Your task to perform on an android device: remove spam from my inbox in the gmail app Image 0: 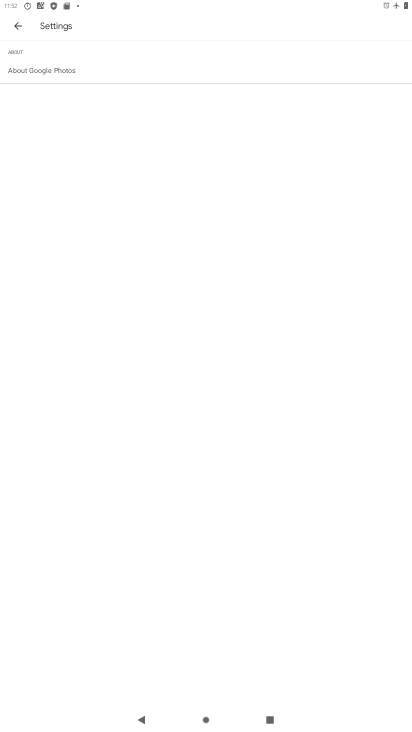
Step 0: press home button
Your task to perform on an android device: remove spam from my inbox in the gmail app Image 1: 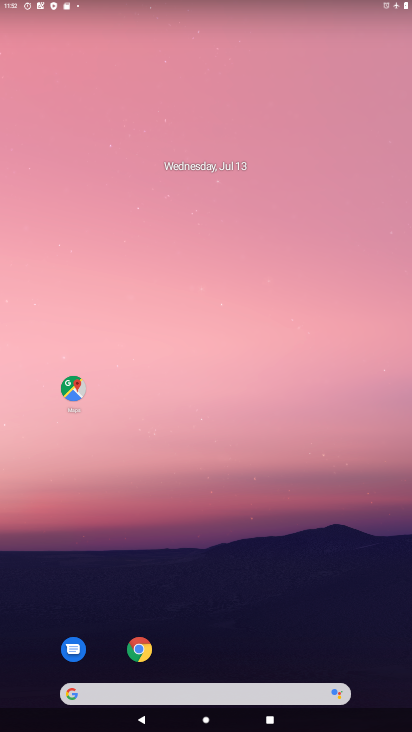
Step 1: drag from (196, 690) to (235, 165)
Your task to perform on an android device: remove spam from my inbox in the gmail app Image 2: 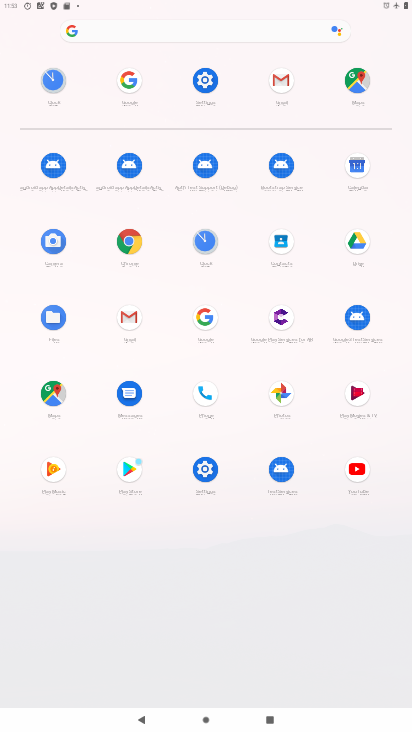
Step 2: click (281, 81)
Your task to perform on an android device: remove spam from my inbox in the gmail app Image 3: 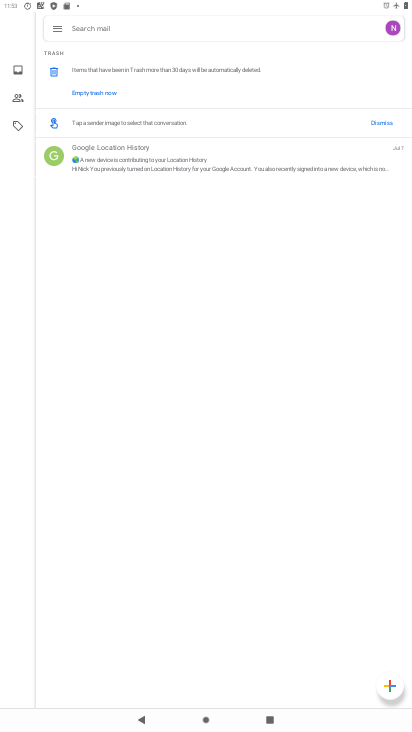
Step 3: click (57, 28)
Your task to perform on an android device: remove spam from my inbox in the gmail app Image 4: 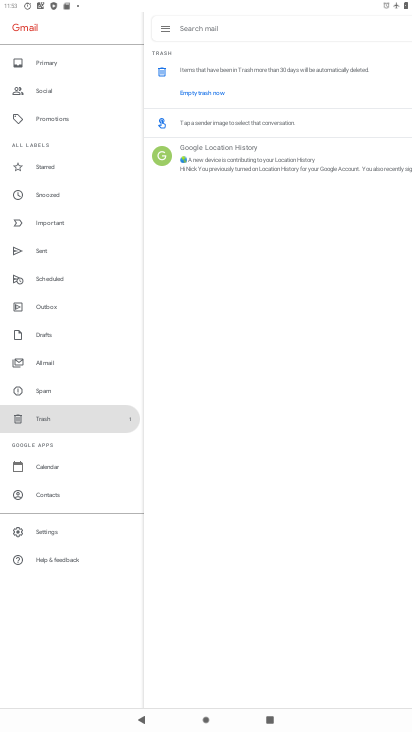
Step 4: click (45, 388)
Your task to perform on an android device: remove spam from my inbox in the gmail app Image 5: 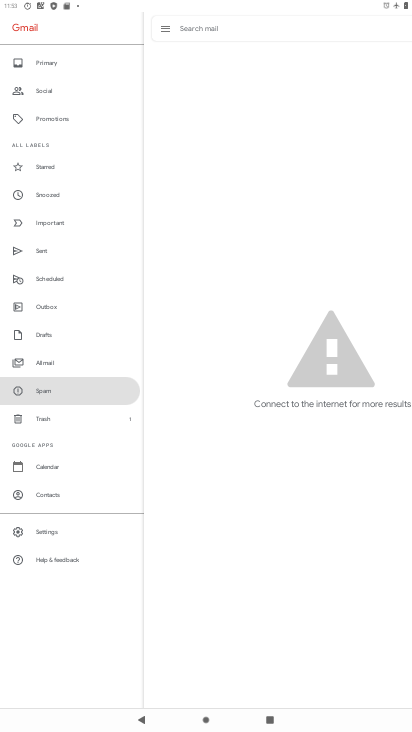
Step 5: task complete